Your task to perform on an android device: Search for the ikea billy bookcase Image 0: 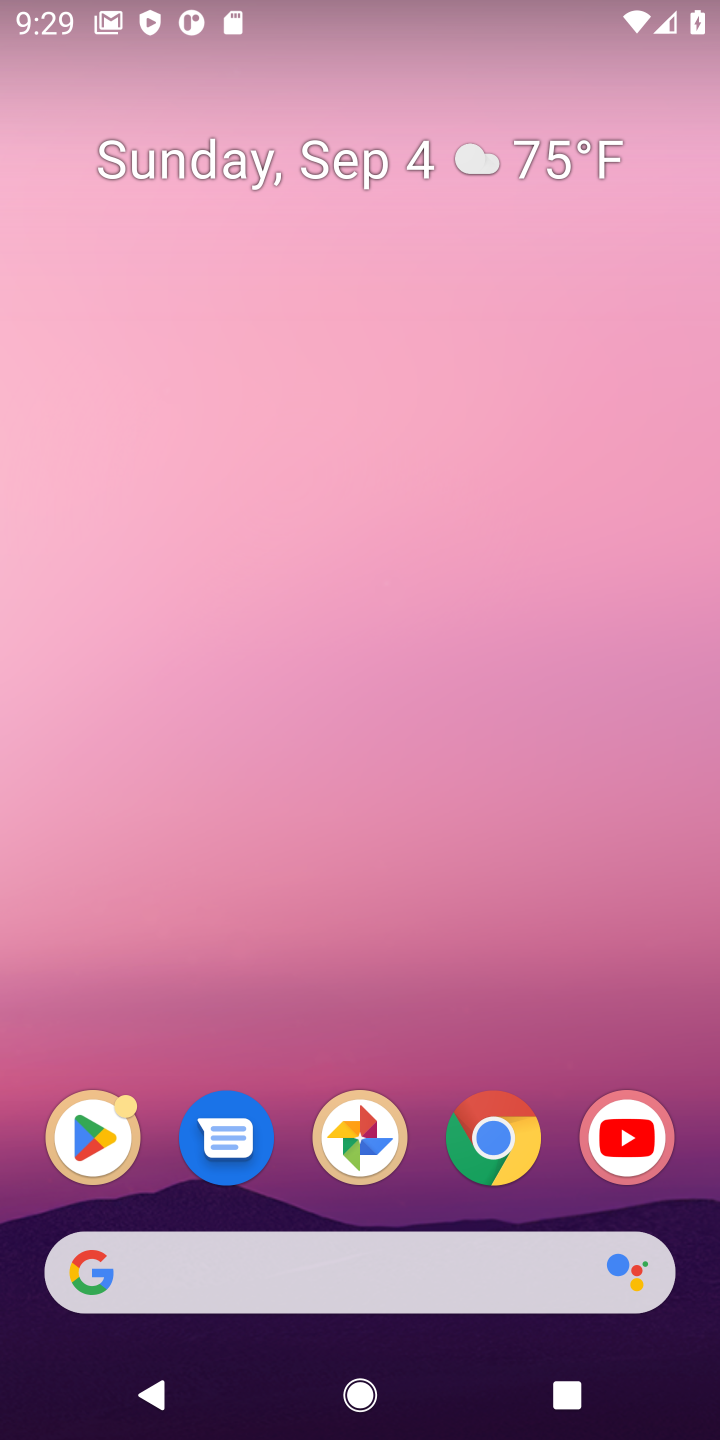
Step 0: click (512, 1151)
Your task to perform on an android device: Search for the ikea billy bookcase Image 1: 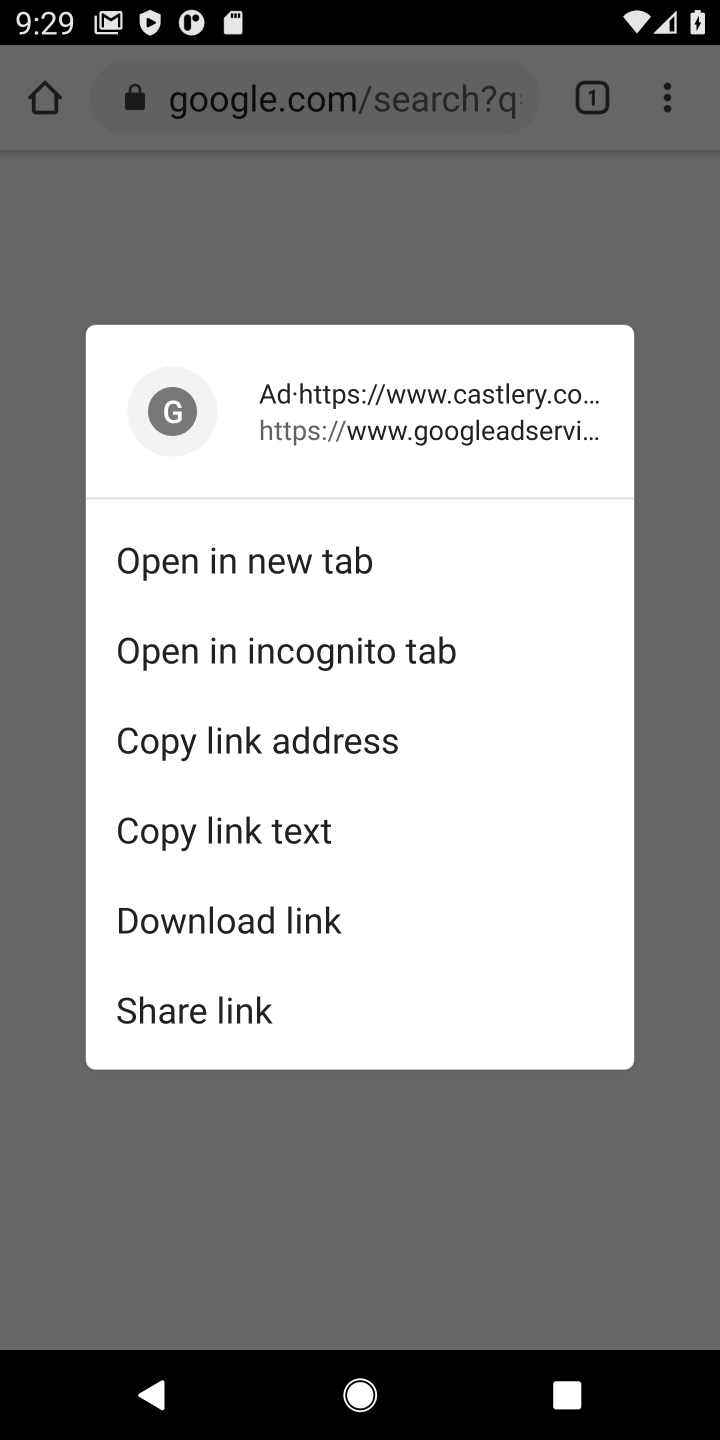
Step 1: press home button
Your task to perform on an android device: Search for the ikea billy bookcase Image 2: 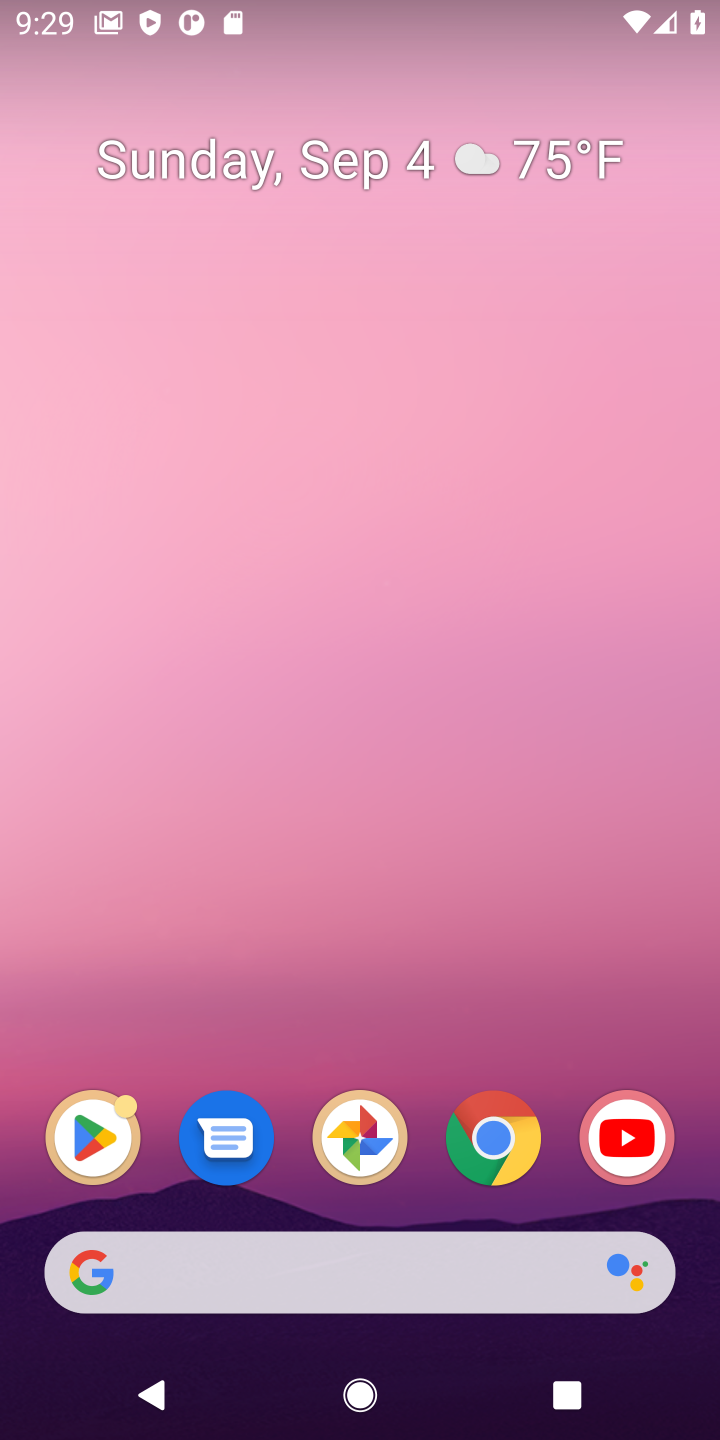
Step 2: click (503, 1158)
Your task to perform on an android device: Search for the ikea billy bookcase Image 3: 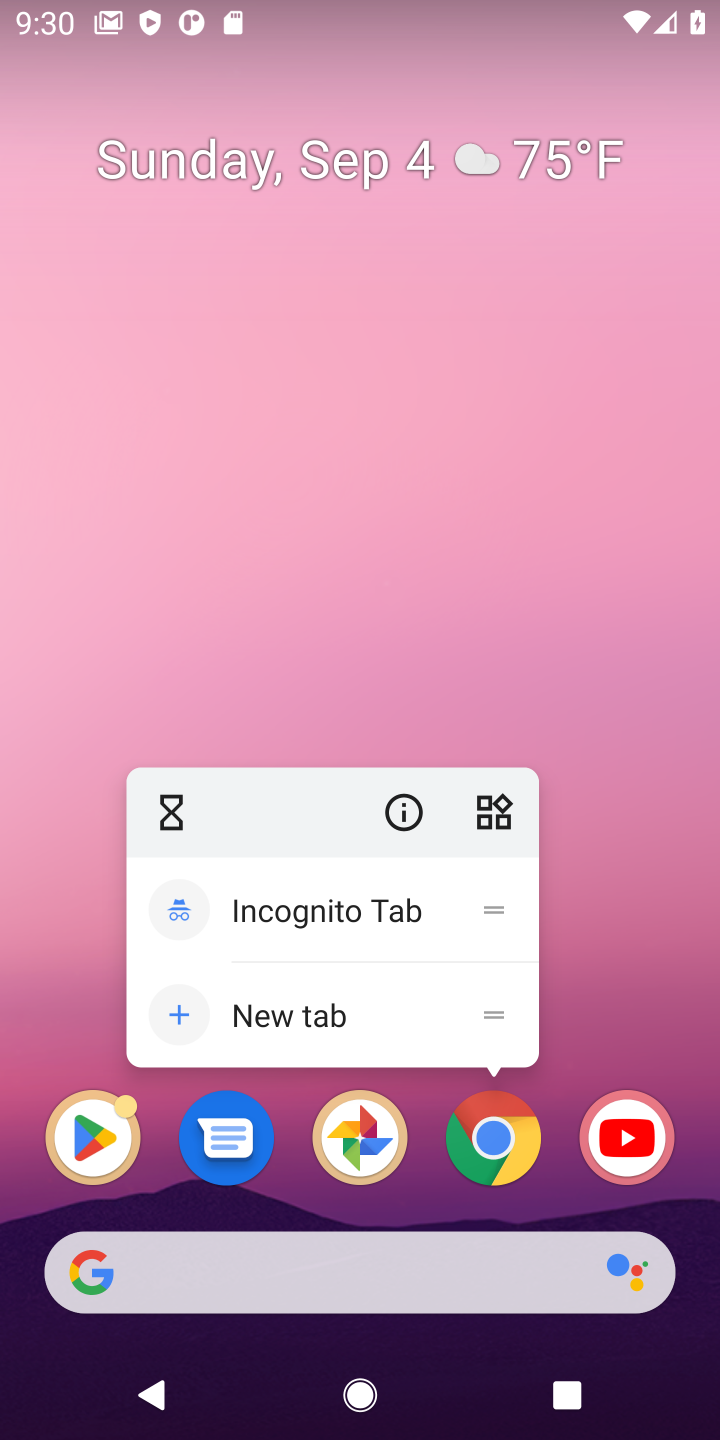
Step 3: click (503, 1158)
Your task to perform on an android device: Search for the ikea billy bookcase Image 4: 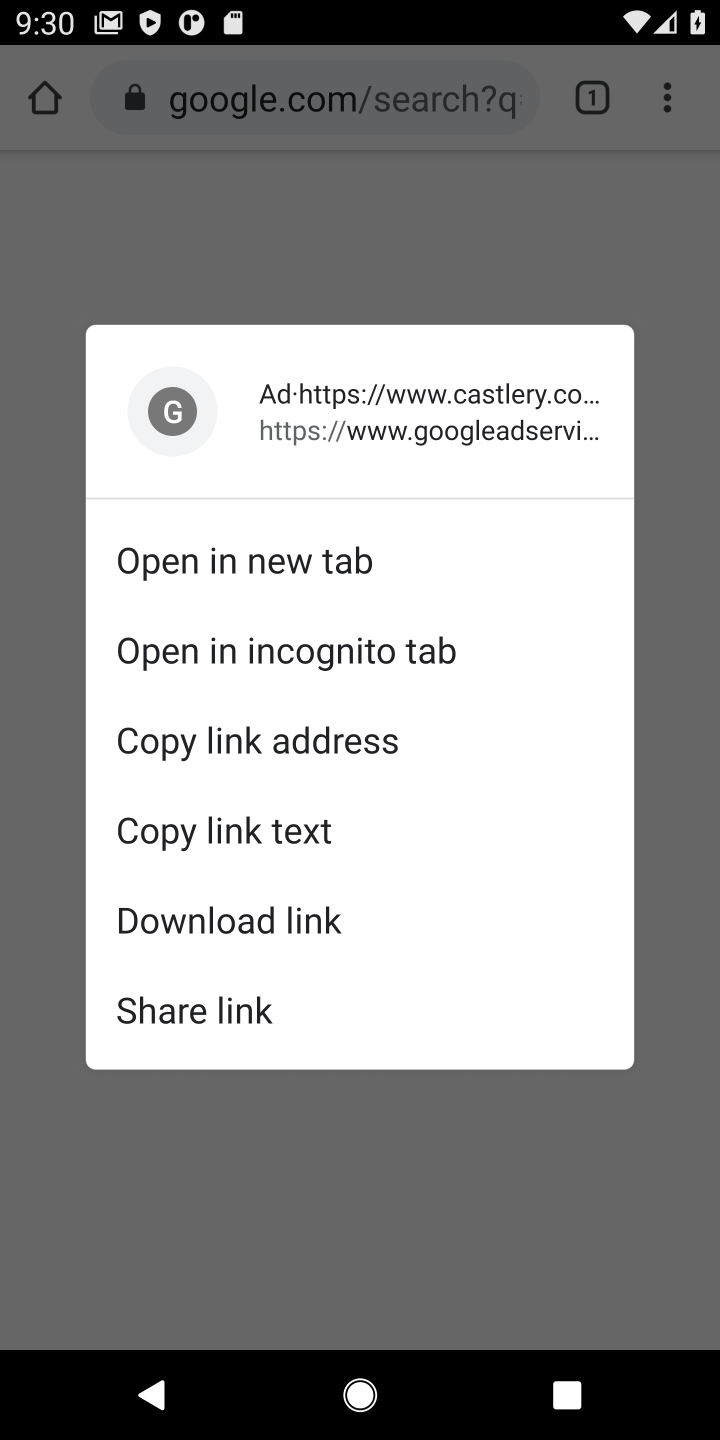
Step 4: press back button
Your task to perform on an android device: Search for the ikea billy bookcase Image 5: 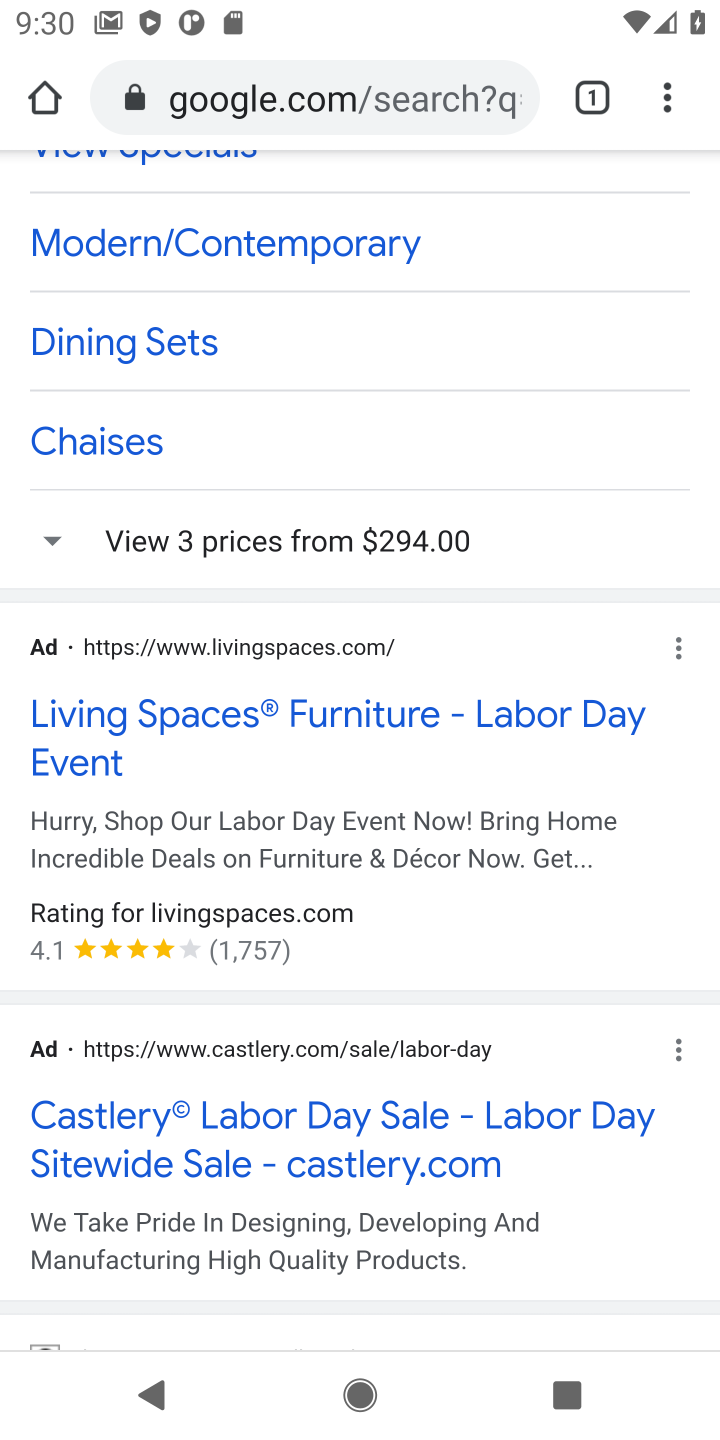
Step 5: click (395, 98)
Your task to perform on an android device: Search for the ikea billy bookcase Image 6: 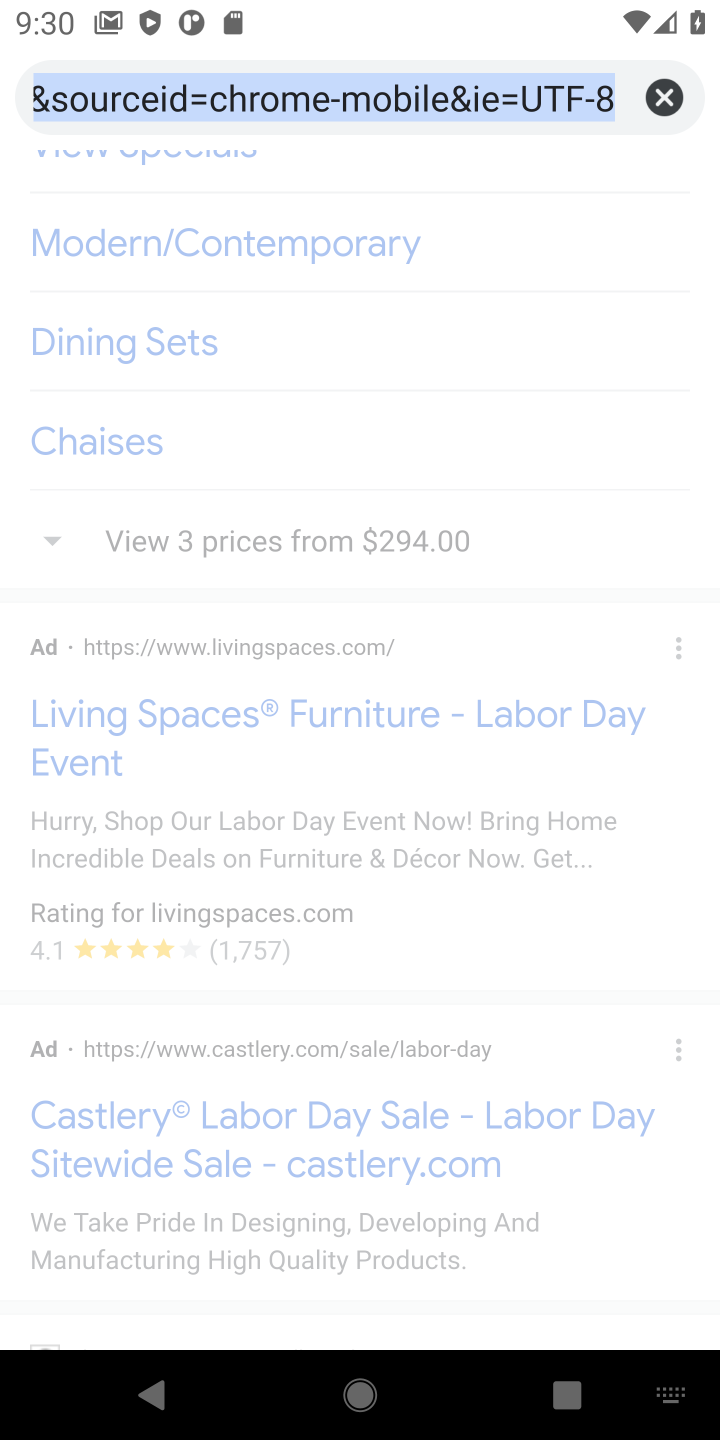
Step 6: type "ikea billy bookcase"
Your task to perform on an android device: Search for the ikea billy bookcase Image 7: 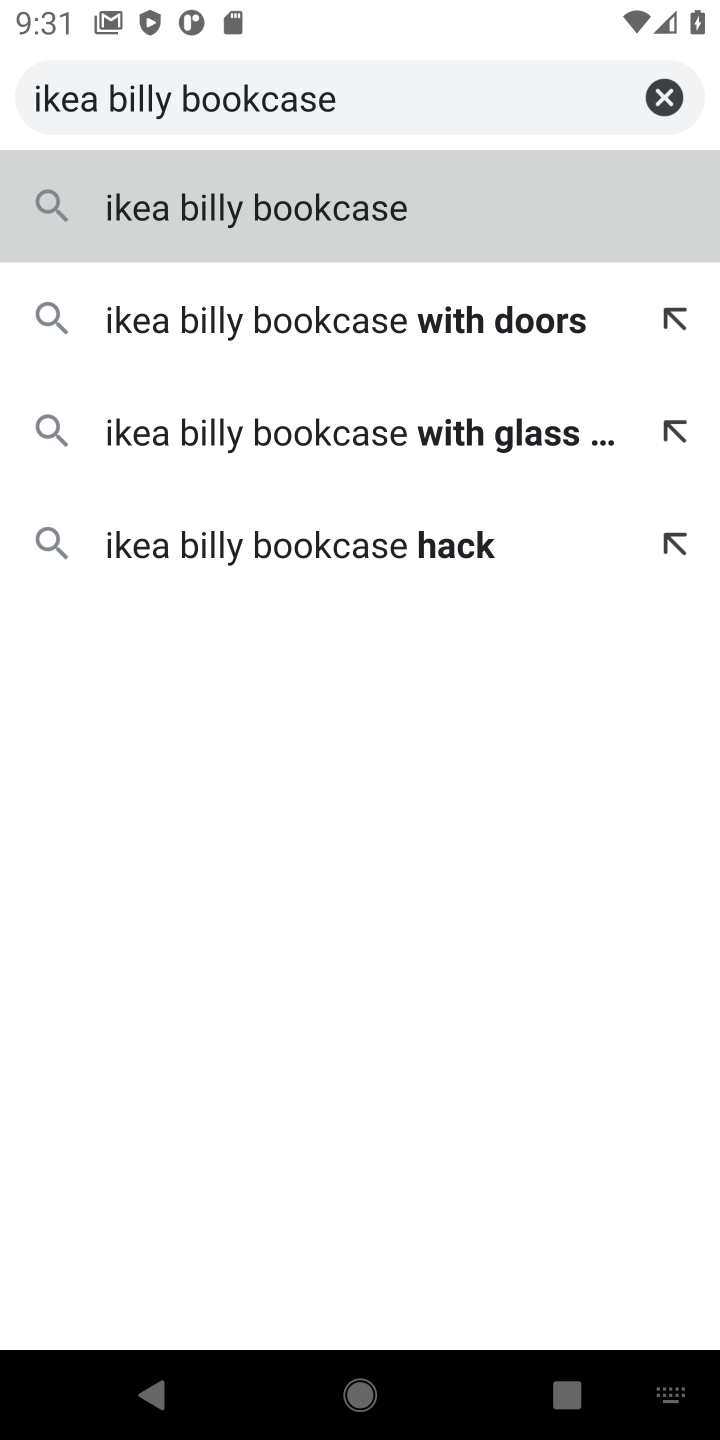
Step 7: click (493, 220)
Your task to perform on an android device: Search for the ikea billy bookcase Image 8: 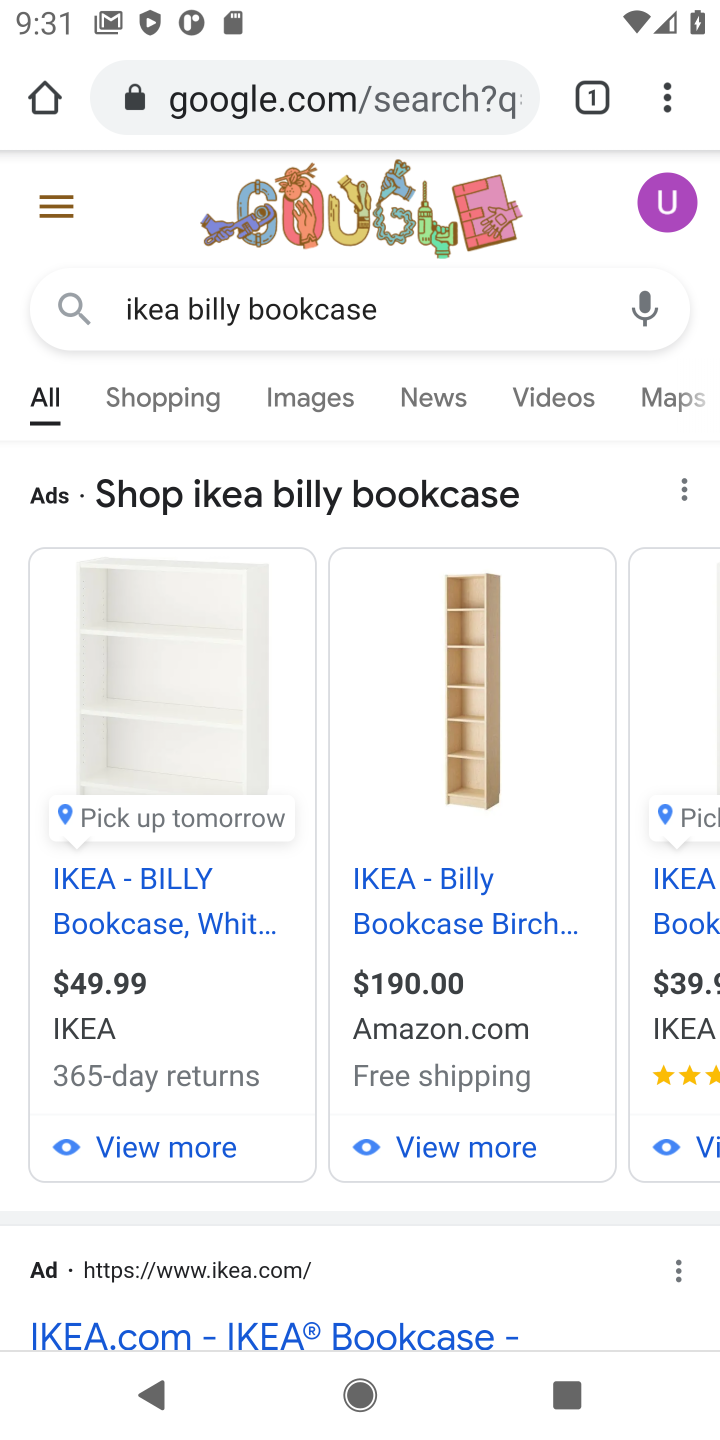
Step 8: drag from (307, 1220) to (318, 424)
Your task to perform on an android device: Search for the ikea billy bookcase Image 9: 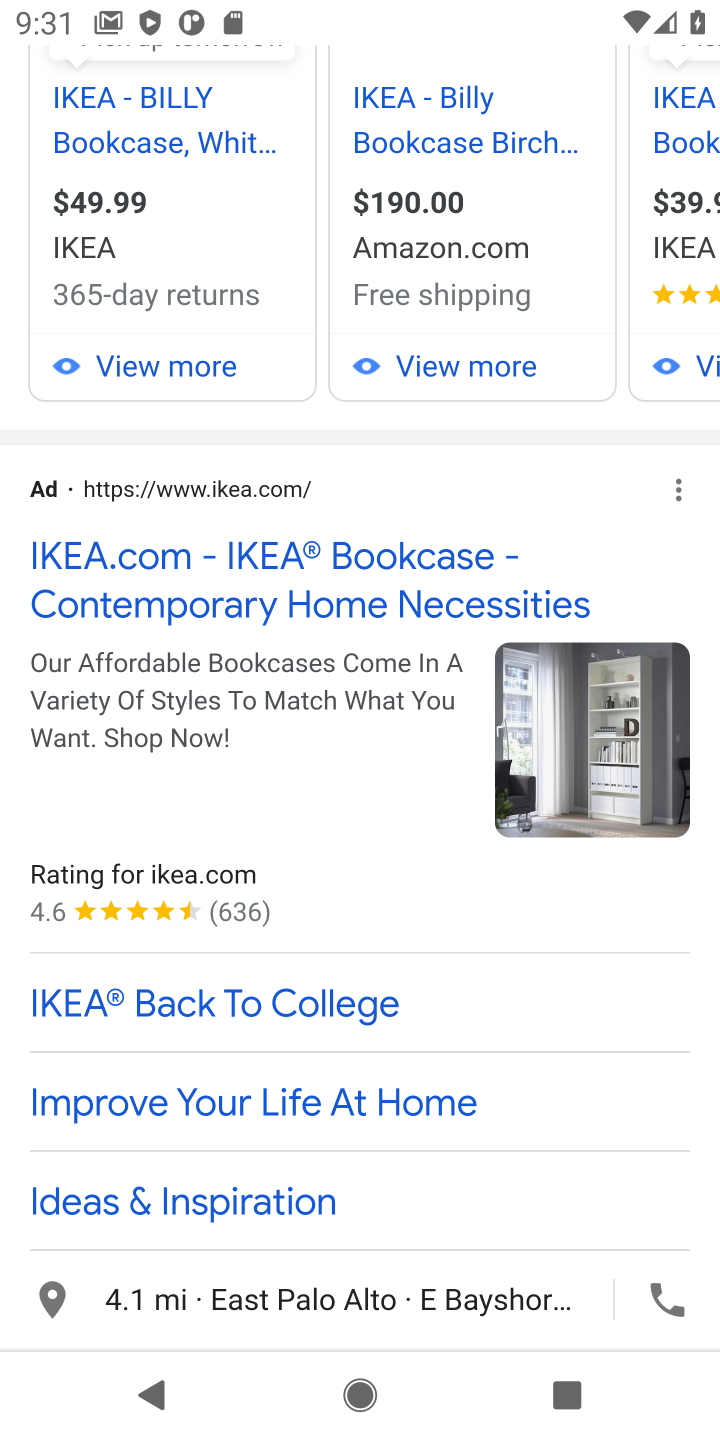
Step 9: click (137, 109)
Your task to perform on an android device: Search for the ikea billy bookcase Image 10: 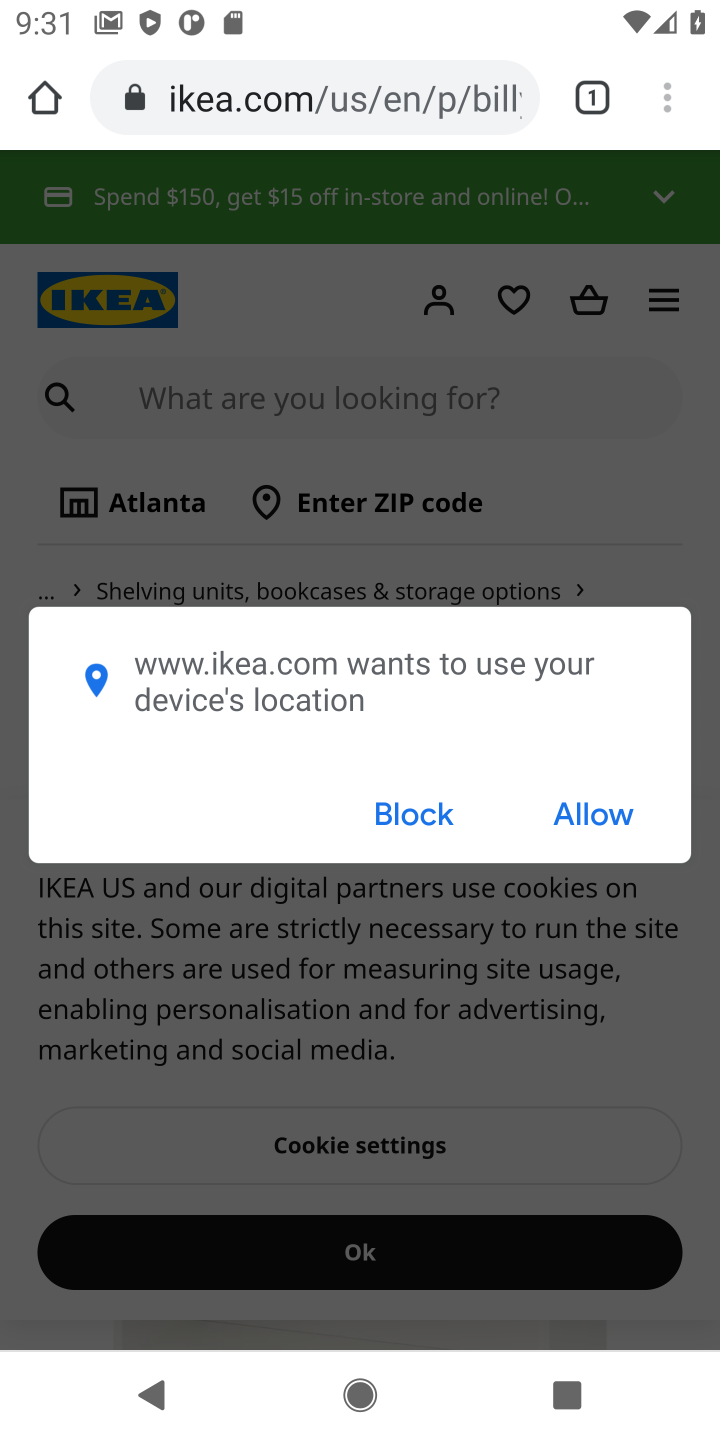
Step 10: task complete